Your task to perform on an android device: Search for "bose quietcomfort 35" on walmart.com, select the first entry, and add it to the cart. Image 0: 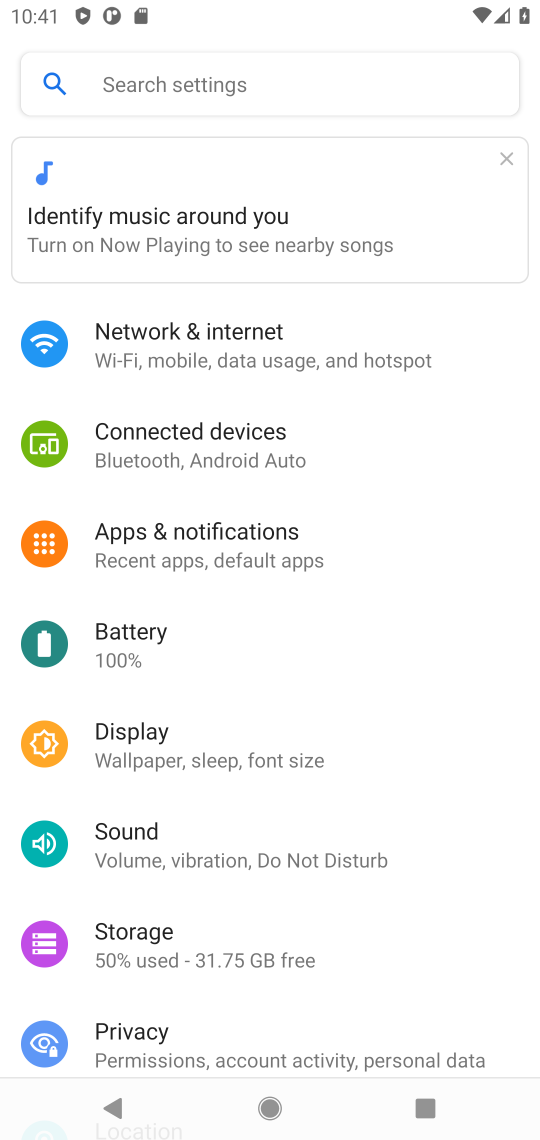
Step 0: press home button
Your task to perform on an android device: Search for "bose quietcomfort 35" on walmart.com, select the first entry, and add it to the cart. Image 1: 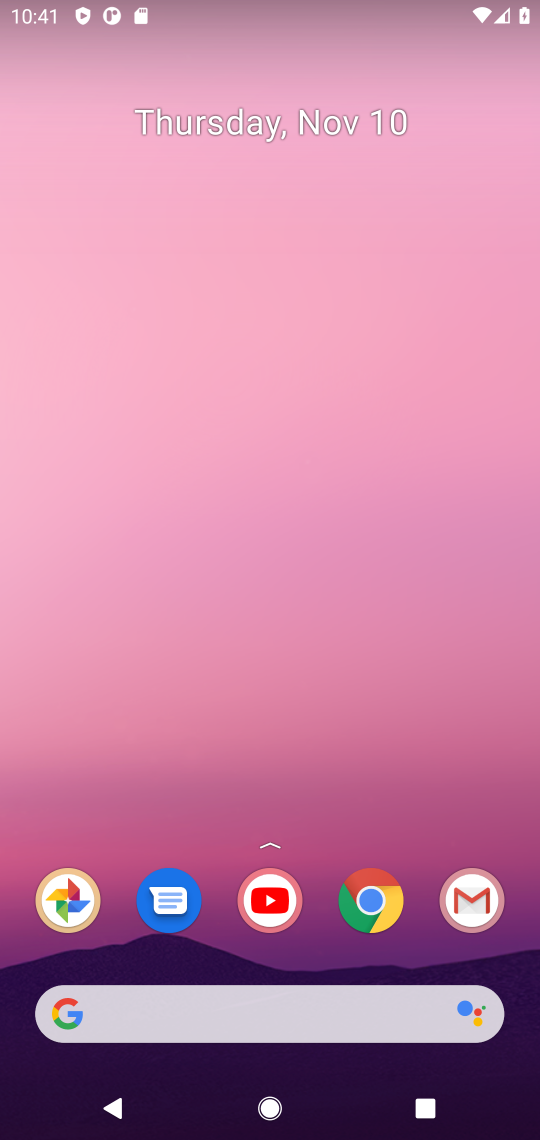
Step 1: click (370, 903)
Your task to perform on an android device: Search for "bose quietcomfort 35" on walmart.com, select the first entry, and add it to the cart. Image 2: 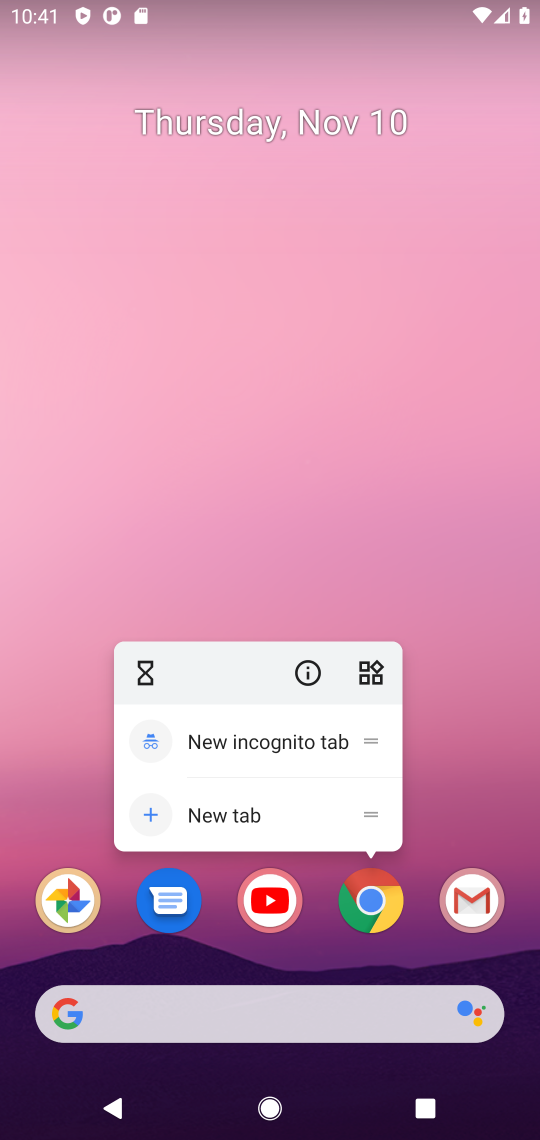
Step 2: click (370, 903)
Your task to perform on an android device: Search for "bose quietcomfort 35" on walmart.com, select the first entry, and add it to the cart. Image 3: 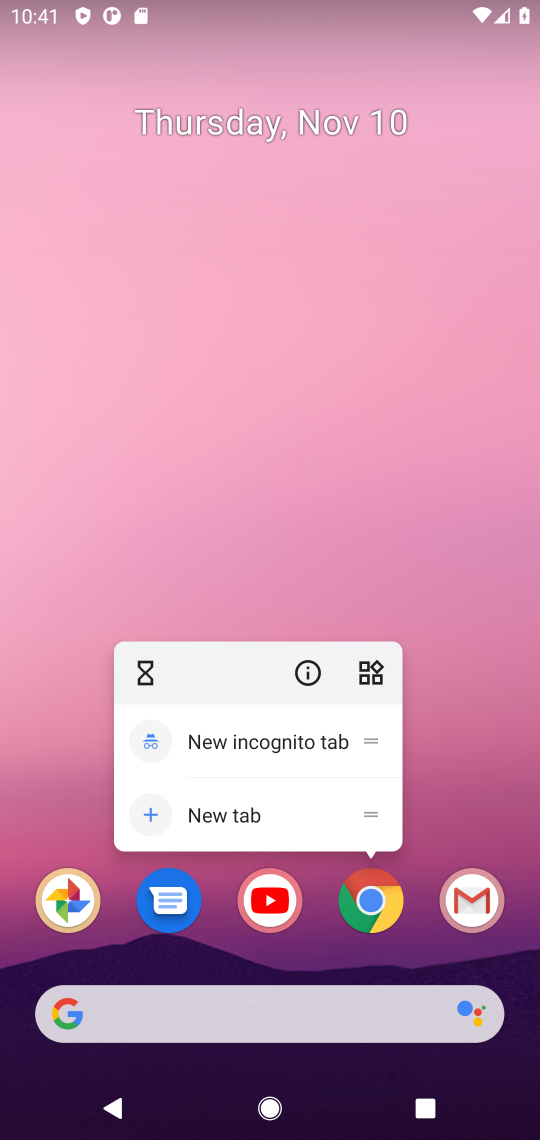
Step 3: click (370, 904)
Your task to perform on an android device: Search for "bose quietcomfort 35" on walmart.com, select the first entry, and add it to the cart. Image 4: 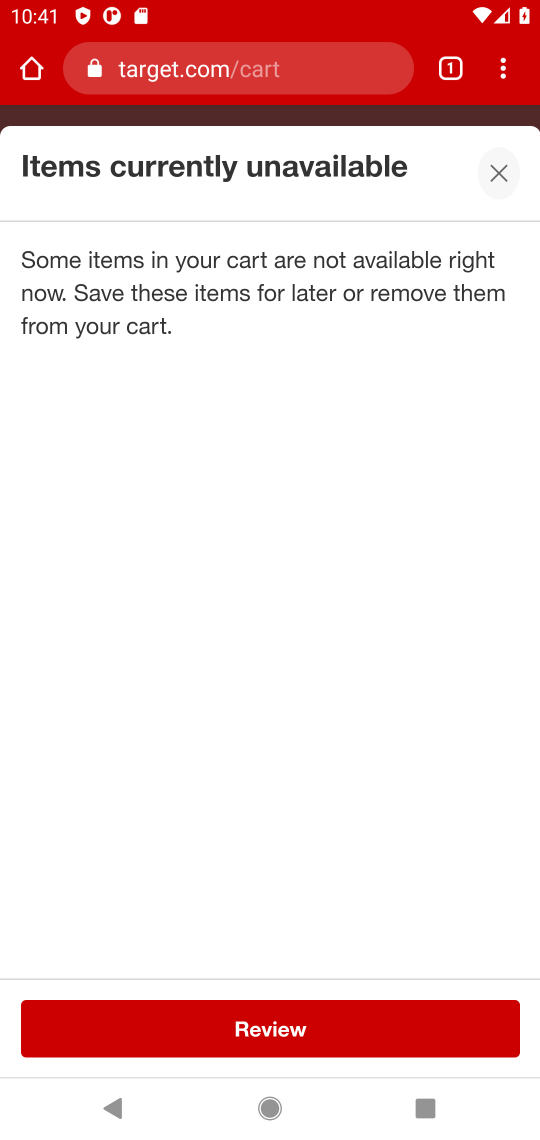
Step 4: click (295, 64)
Your task to perform on an android device: Search for "bose quietcomfort 35" on walmart.com, select the first entry, and add it to the cart. Image 5: 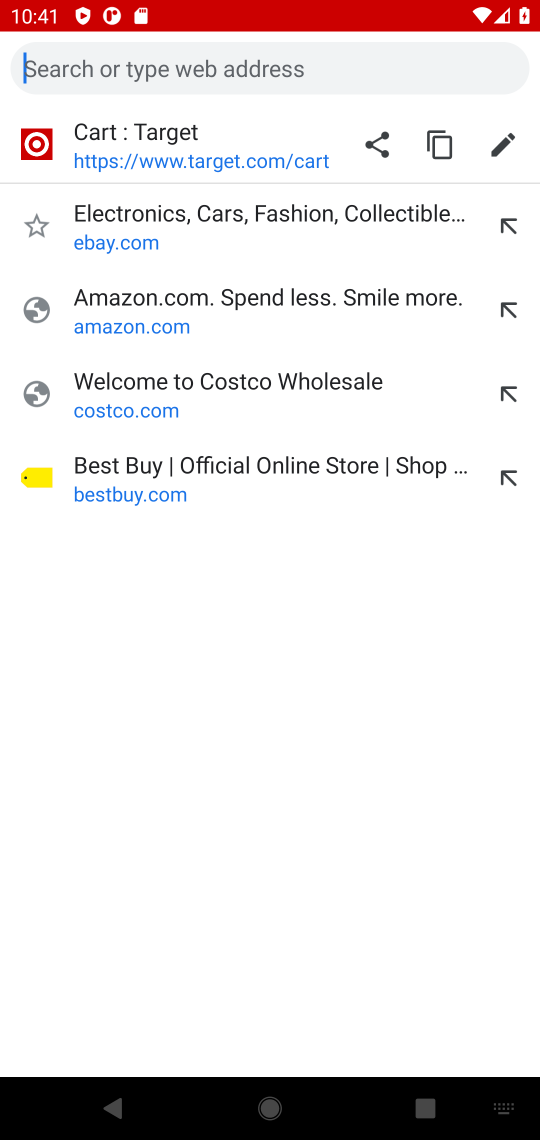
Step 5: type "walmart.com"
Your task to perform on an android device: Search for "bose quietcomfort 35" on walmart.com, select the first entry, and add it to the cart. Image 6: 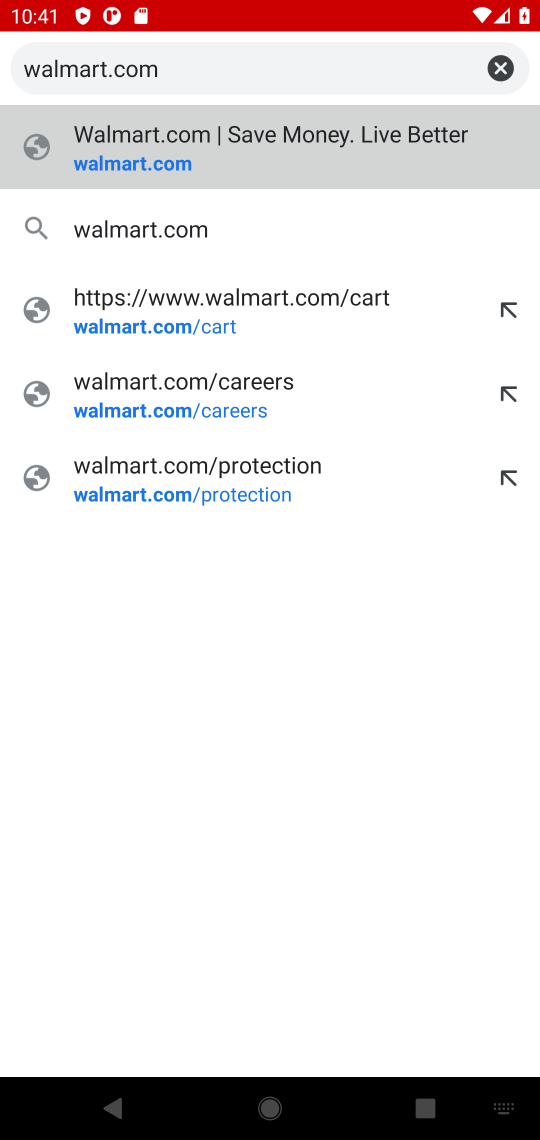
Step 6: press enter
Your task to perform on an android device: Search for "bose quietcomfort 35" on walmart.com, select the first entry, and add it to the cart. Image 7: 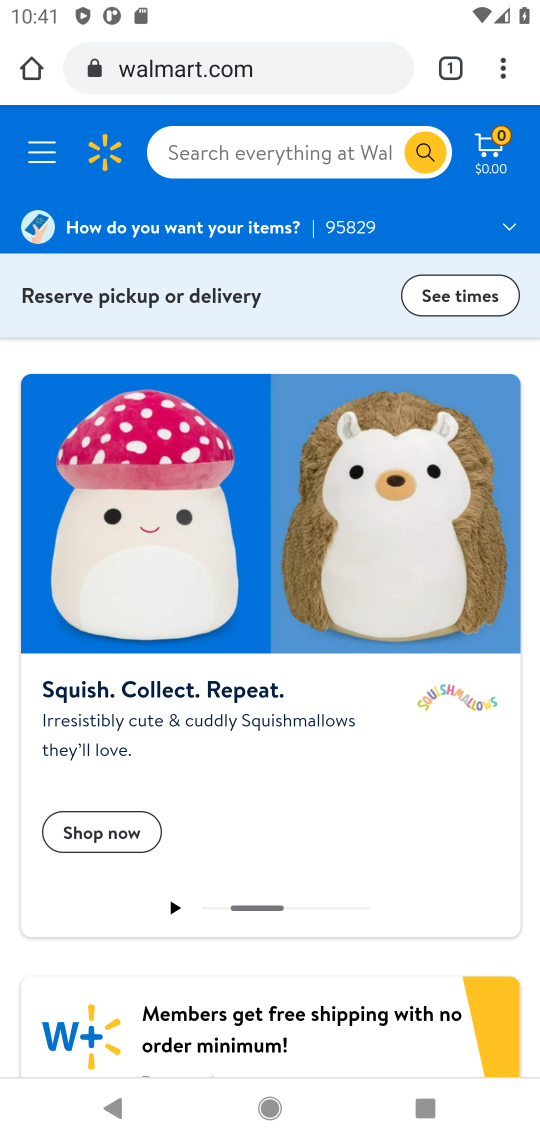
Step 7: click (320, 153)
Your task to perform on an android device: Search for "bose quietcomfort 35" on walmart.com, select the first entry, and add it to the cart. Image 8: 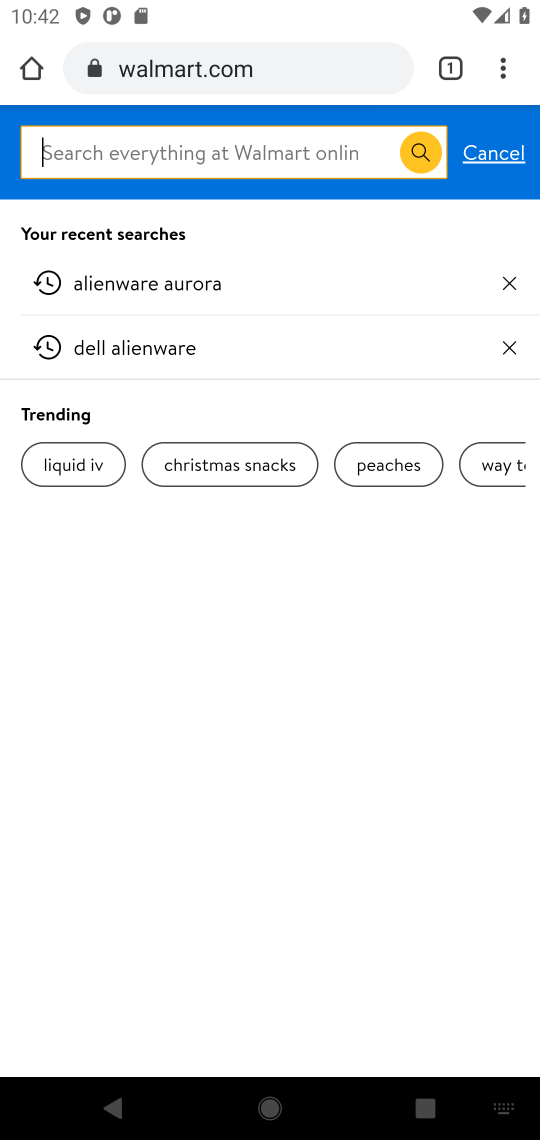
Step 8: type "bose quietcomfort 35"
Your task to perform on an android device: Search for "bose quietcomfort 35" on walmart.com, select the first entry, and add it to the cart. Image 9: 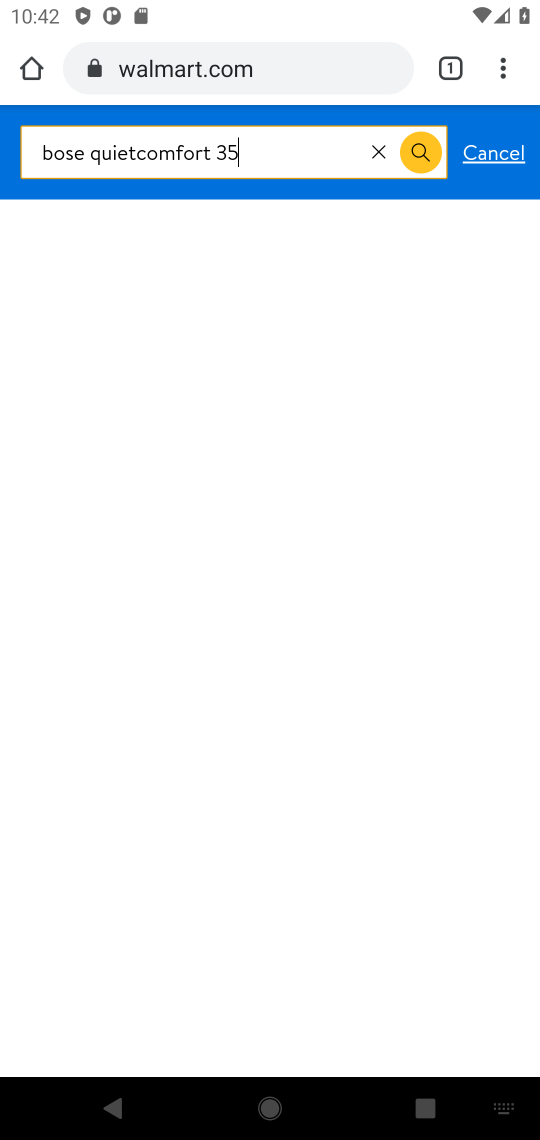
Step 9: press enter
Your task to perform on an android device: Search for "bose quietcomfort 35" on walmart.com, select the first entry, and add it to the cart. Image 10: 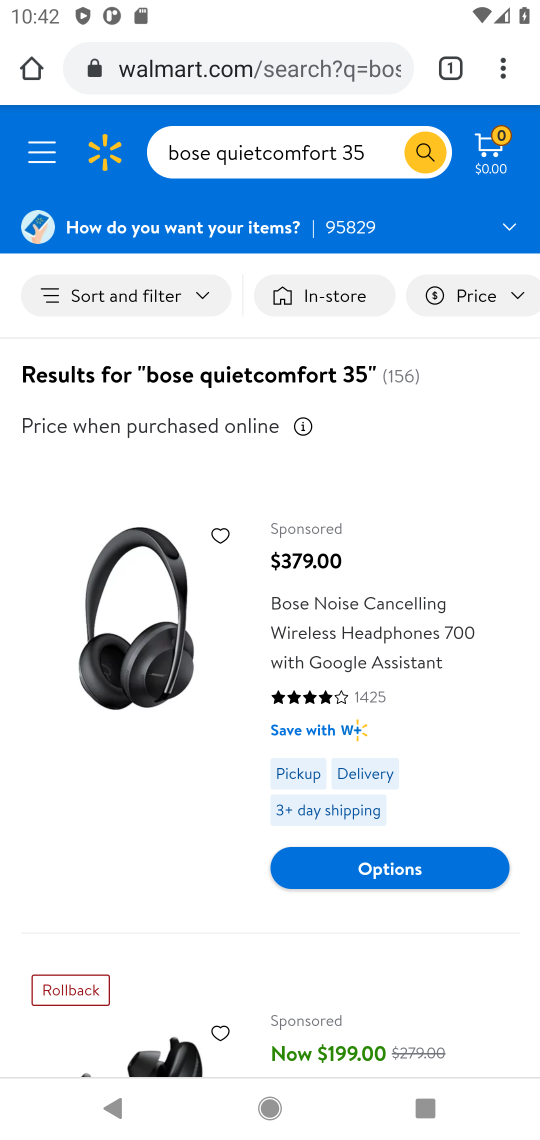
Step 10: task complete